Your task to perform on an android device: Open Google Maps Image 0: 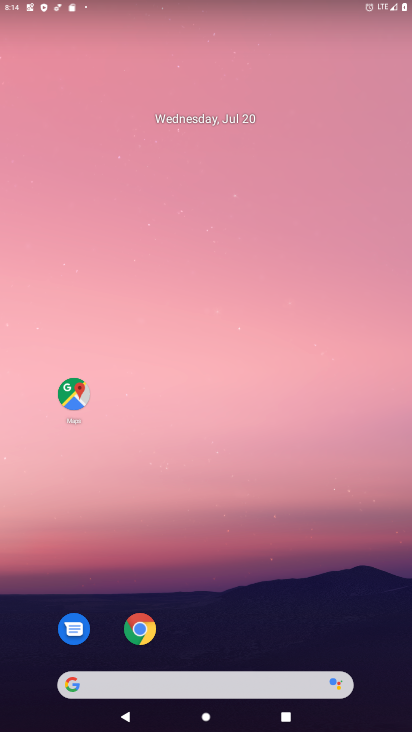
Step 0: click (66, 395)
Your task to perform on an android device: Open Google Maps Image 1: 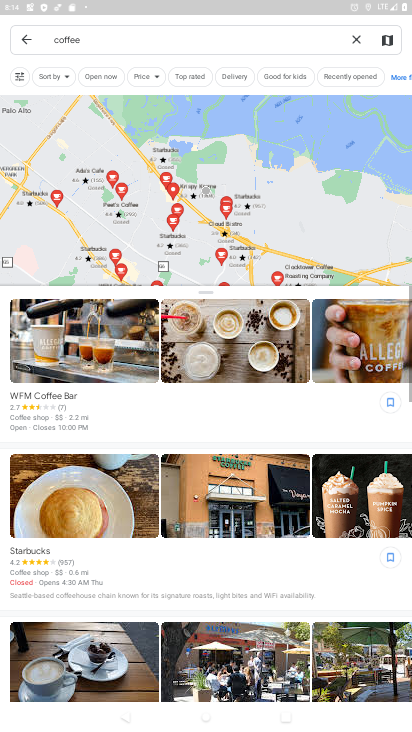
Step 1: task complete